Your task to perform on an android device: Open Android settings Image 0: 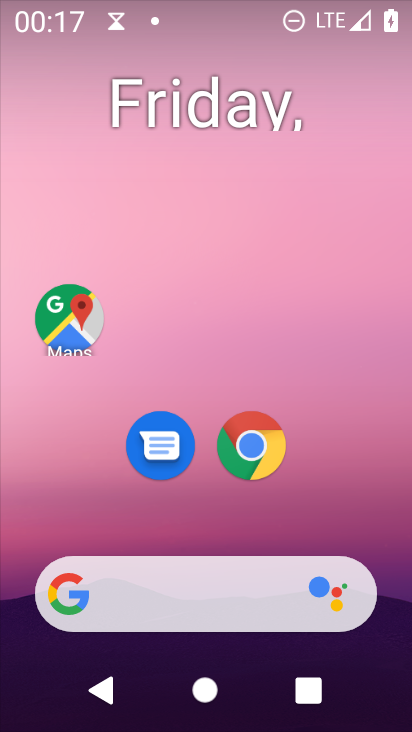
Step 0: drag from (226, 723) to (173, 74)
Your task to perform on an android device: Open Android settings Image 1: 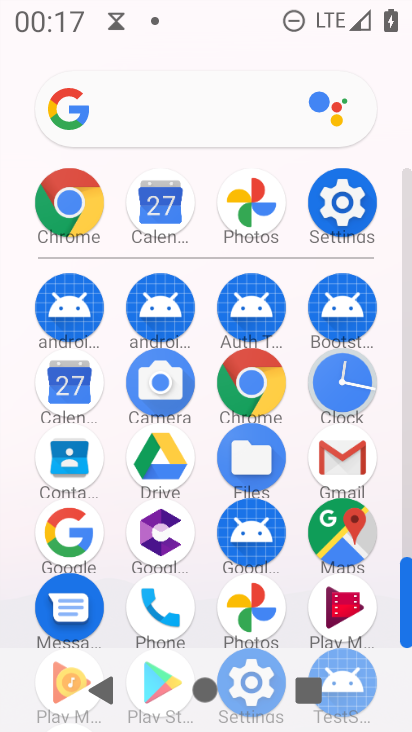
Step 1: click (350, 202)
Your task to perform on an android device: Open Android settings Image 2: 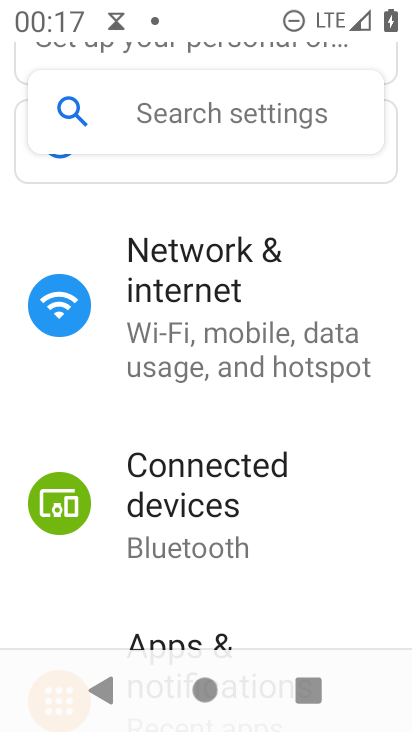
Step 2: task complete